Your task to perform on an android device: Turn on the flashlight Image 0: 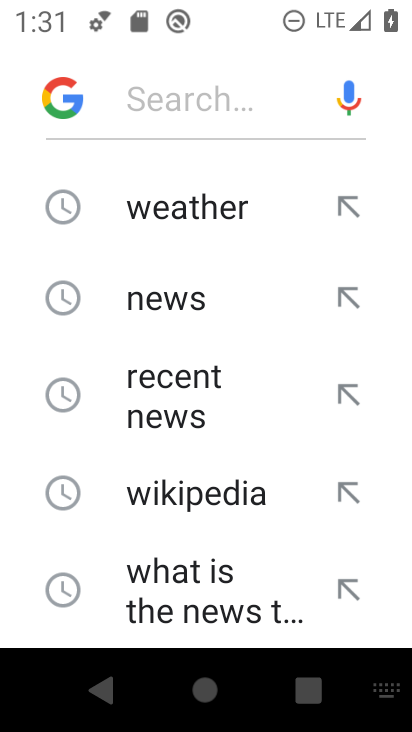
Step 0: press home button
Your task to perform on an android device: Turn on the flashlight Image 1: 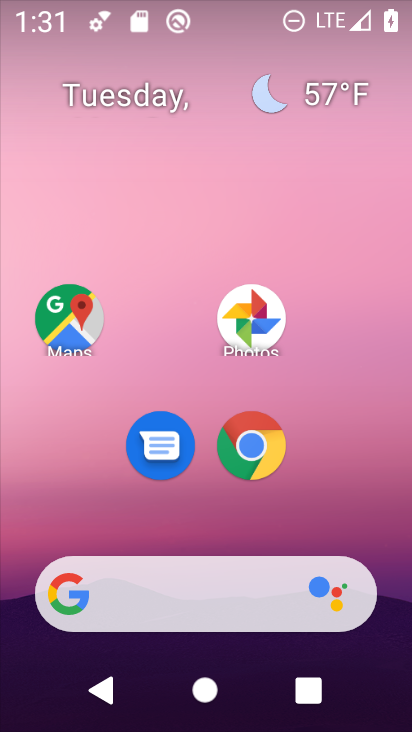
Step 1: drag from (277, 11) to (269, 375)
Your task to perform on an android device: Turn on the flashlight Image 2: 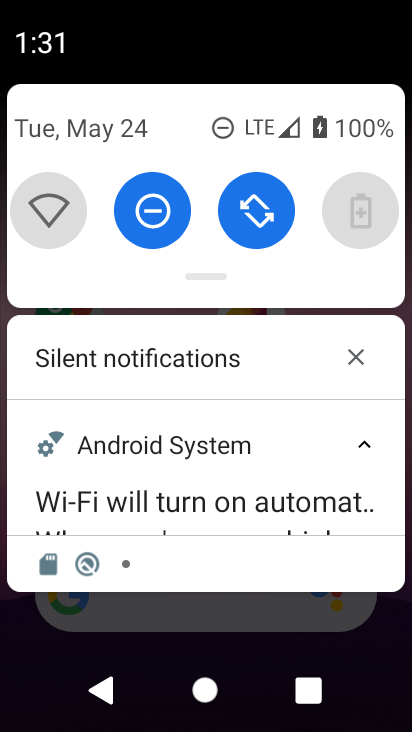
Step 2: drag from (177, 108) to (197, 394)
Your task to perform on an android device: Turn on the flashlight Image 3: 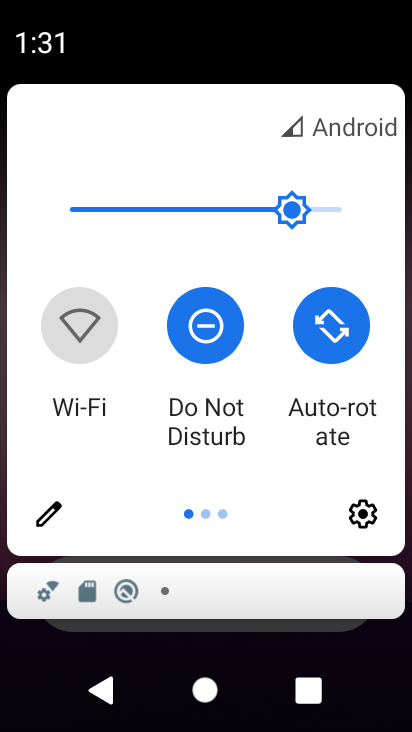
Step 3: click (76, 518)
Your task to perform on an android device: Turn on the flashlight Image 4: 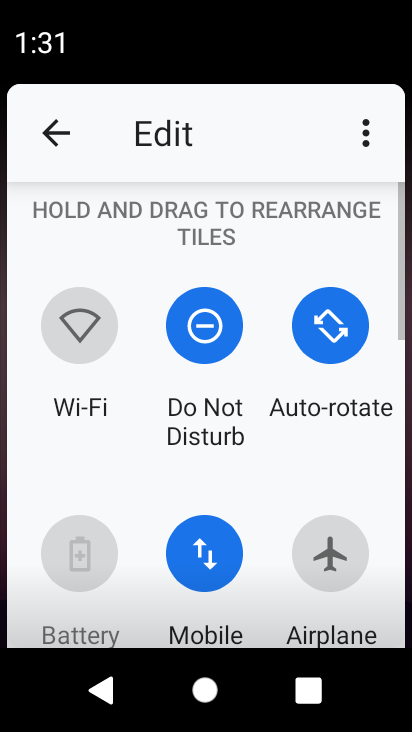
Step 4: task complete